Your task to perform on an android device: uninstall "Truecaller" Image 0: 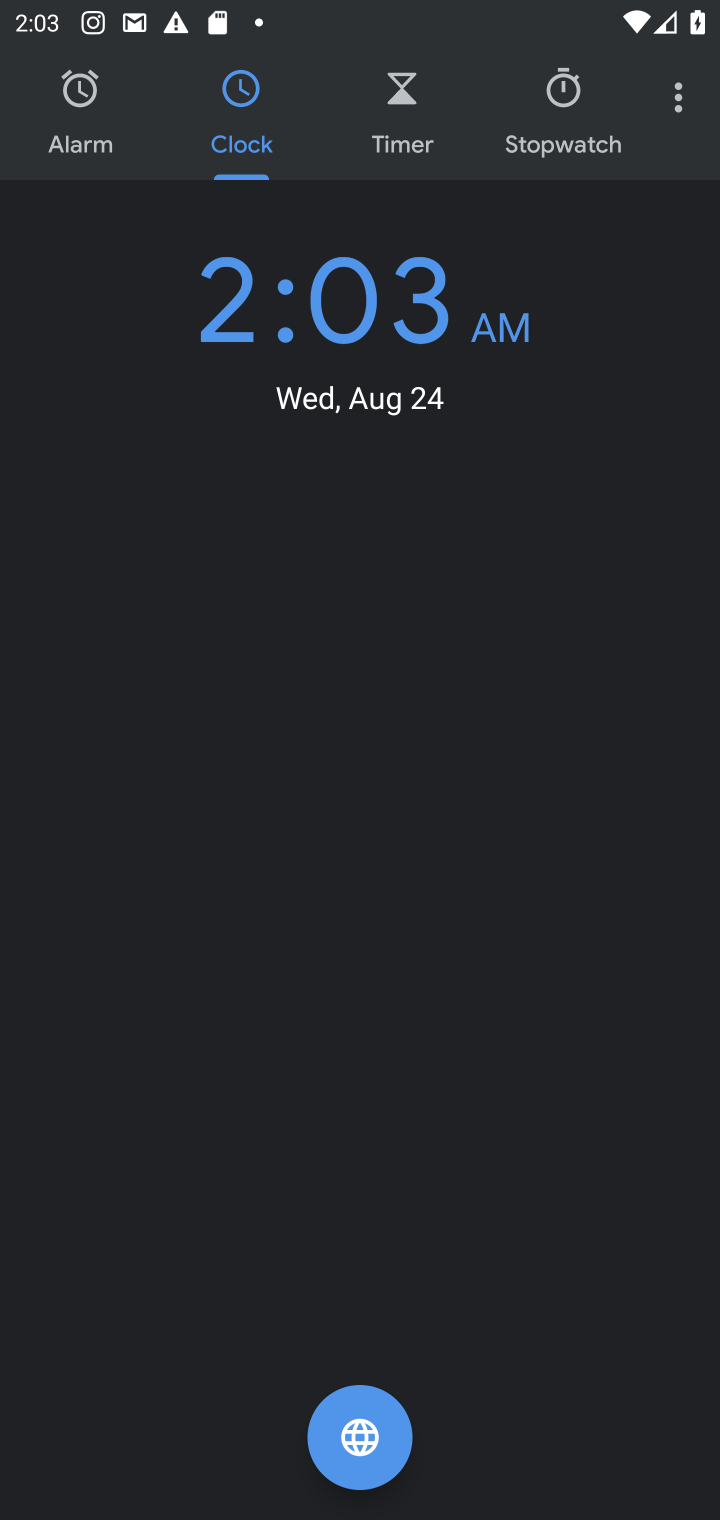
Step 0: press home button
Your task to perform on an android device: uninstall "Truecaller" Image 1: 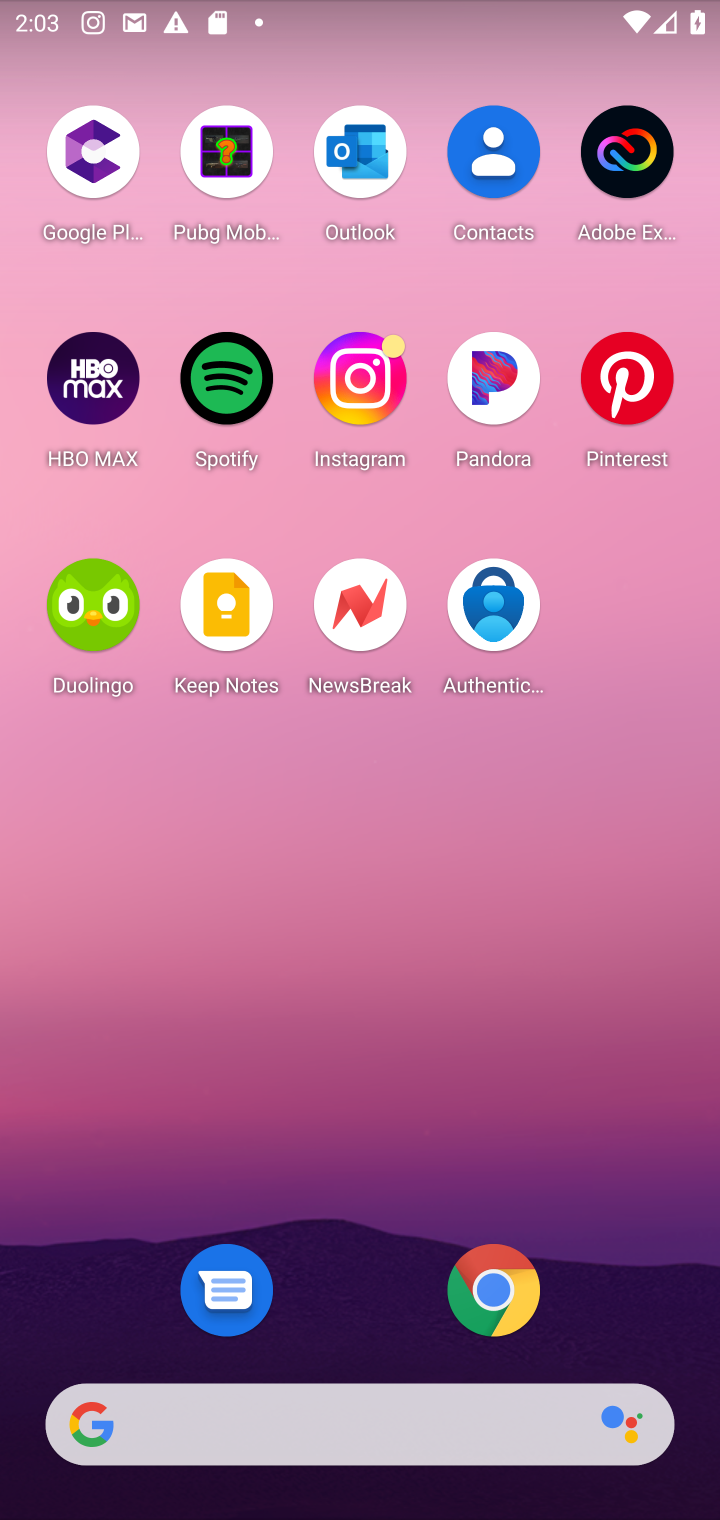
Step 1: click (366, 1352)
Your task to perform on an android device: uninstall "Truecaller" Image 2: 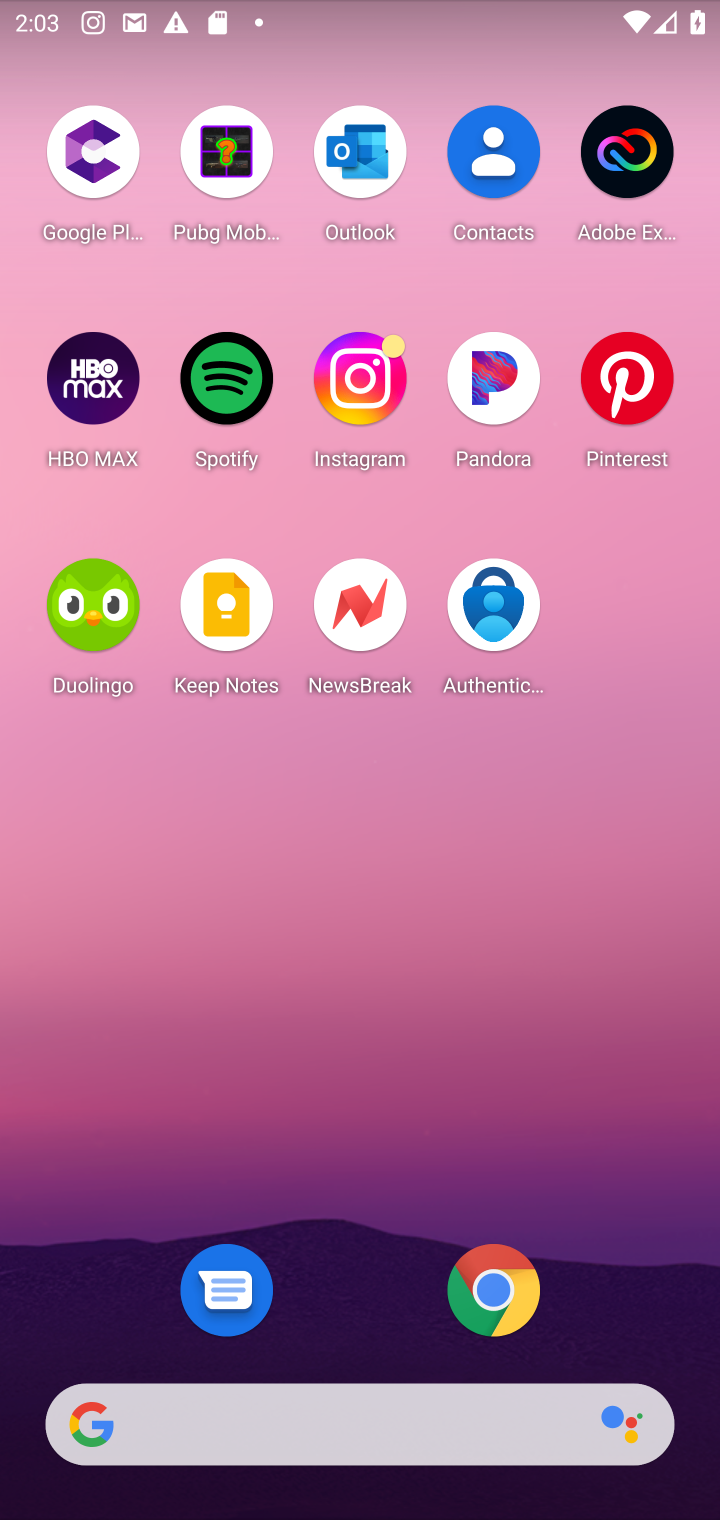
Step 2: drag from (332, 1276) to (465, 104)
Your task to perform on an android device: uninstall "Truecaller" Image 3: 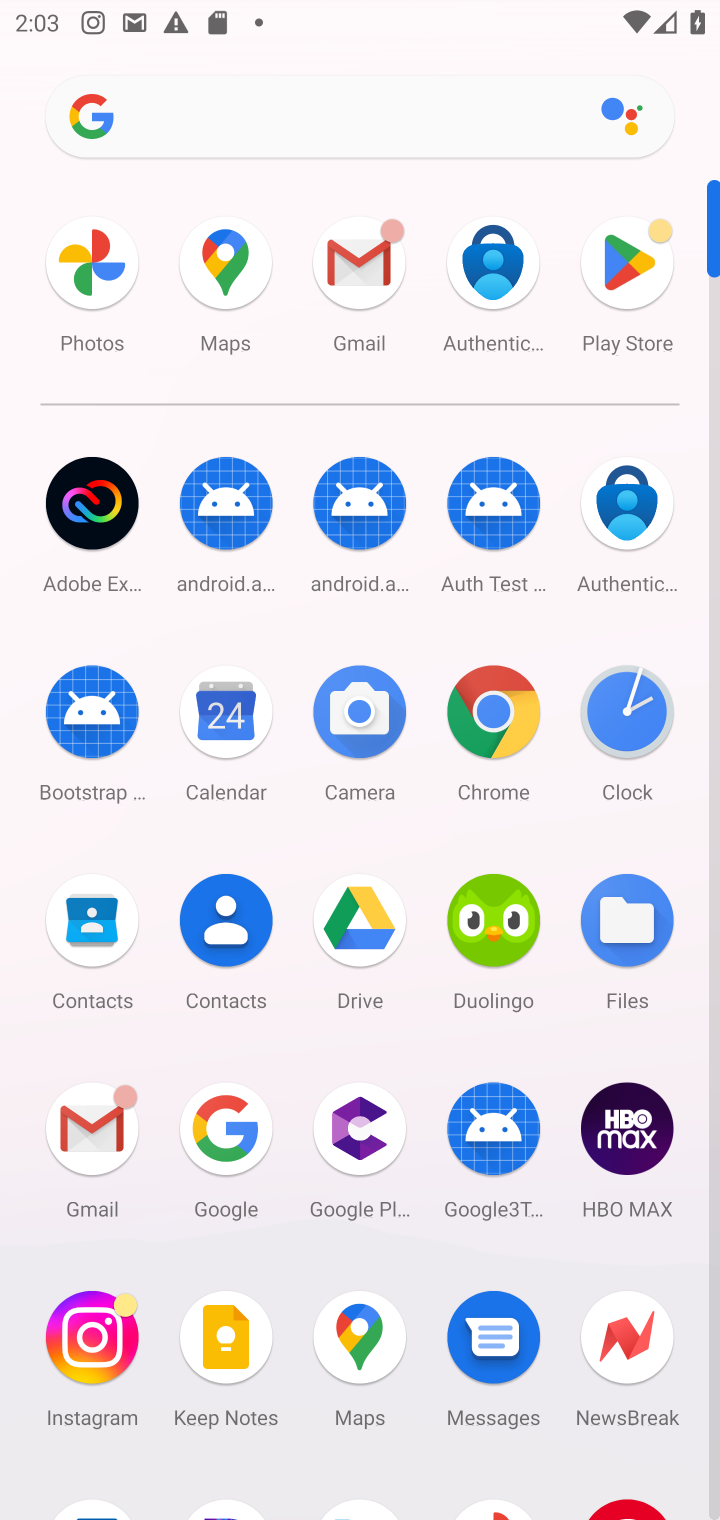
Step 3: click (624, 260)
Your task to perform on an android device: uninstall "Truecaller" Image 4: 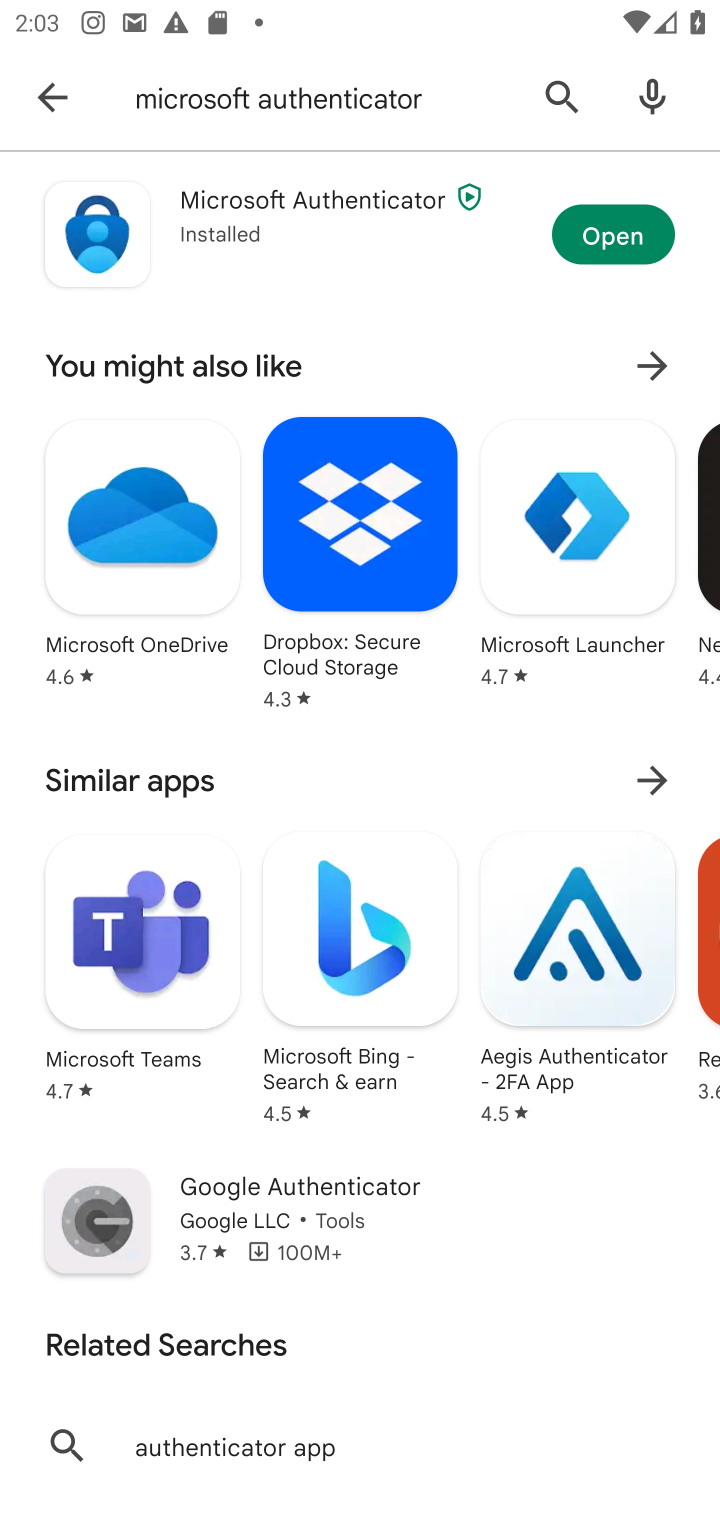
Step 4: click (31, 86)
Your task to perform on an android device: uninstall "Truecaller" Image 5: 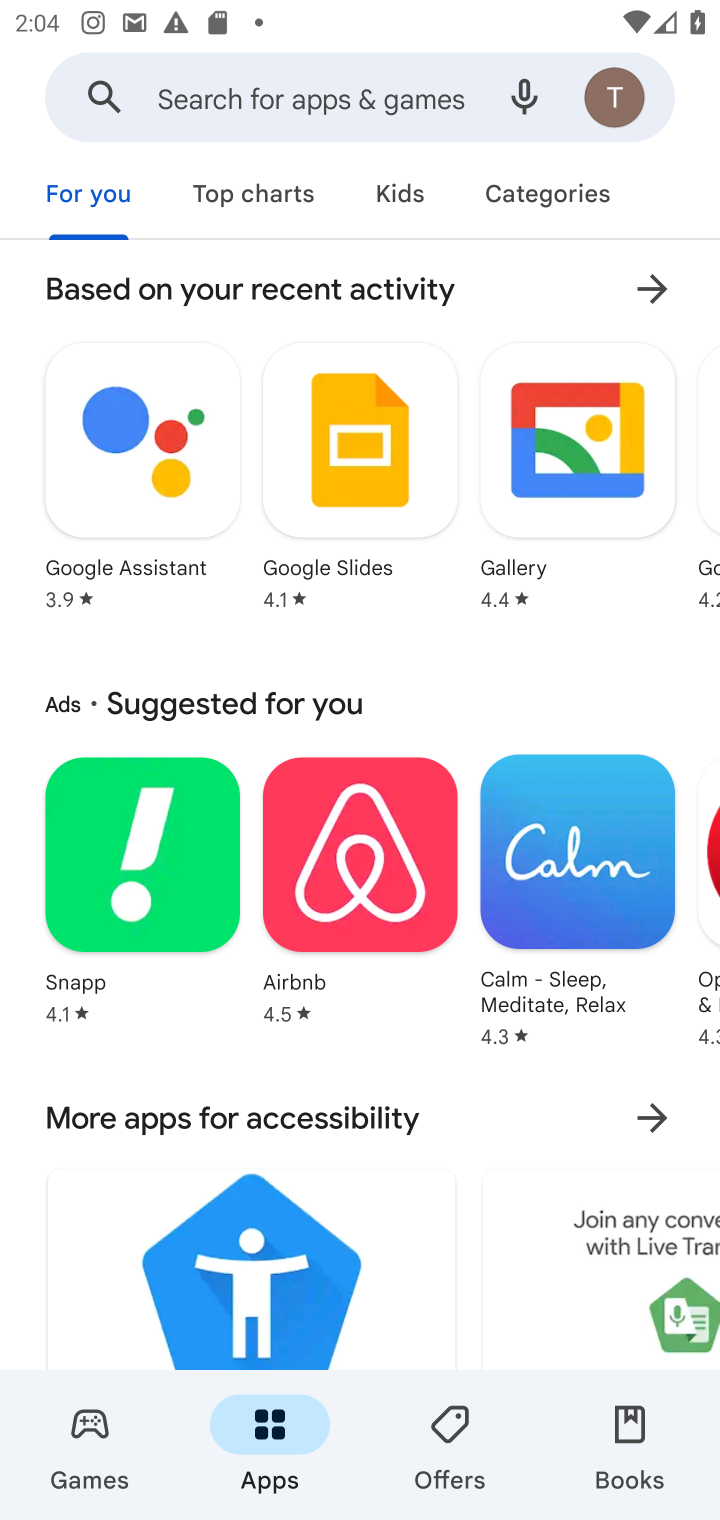
Step 5: click (323, 112)
Your task to perform on an android device: uninstall "Truecaller" Image 6: 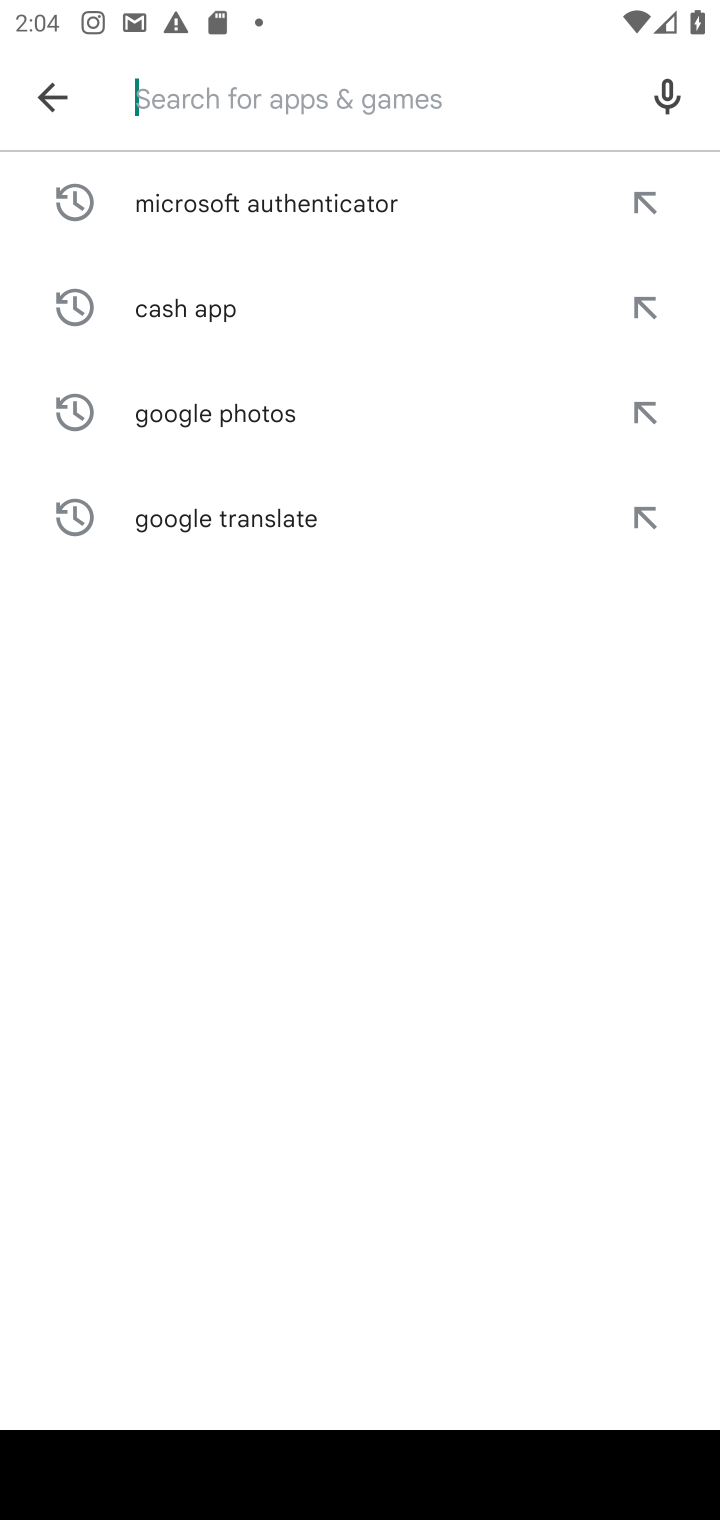
Step 6: type "Truecaller"
Your task to perform on an android device: uninstall "Truecaller" Image 7: 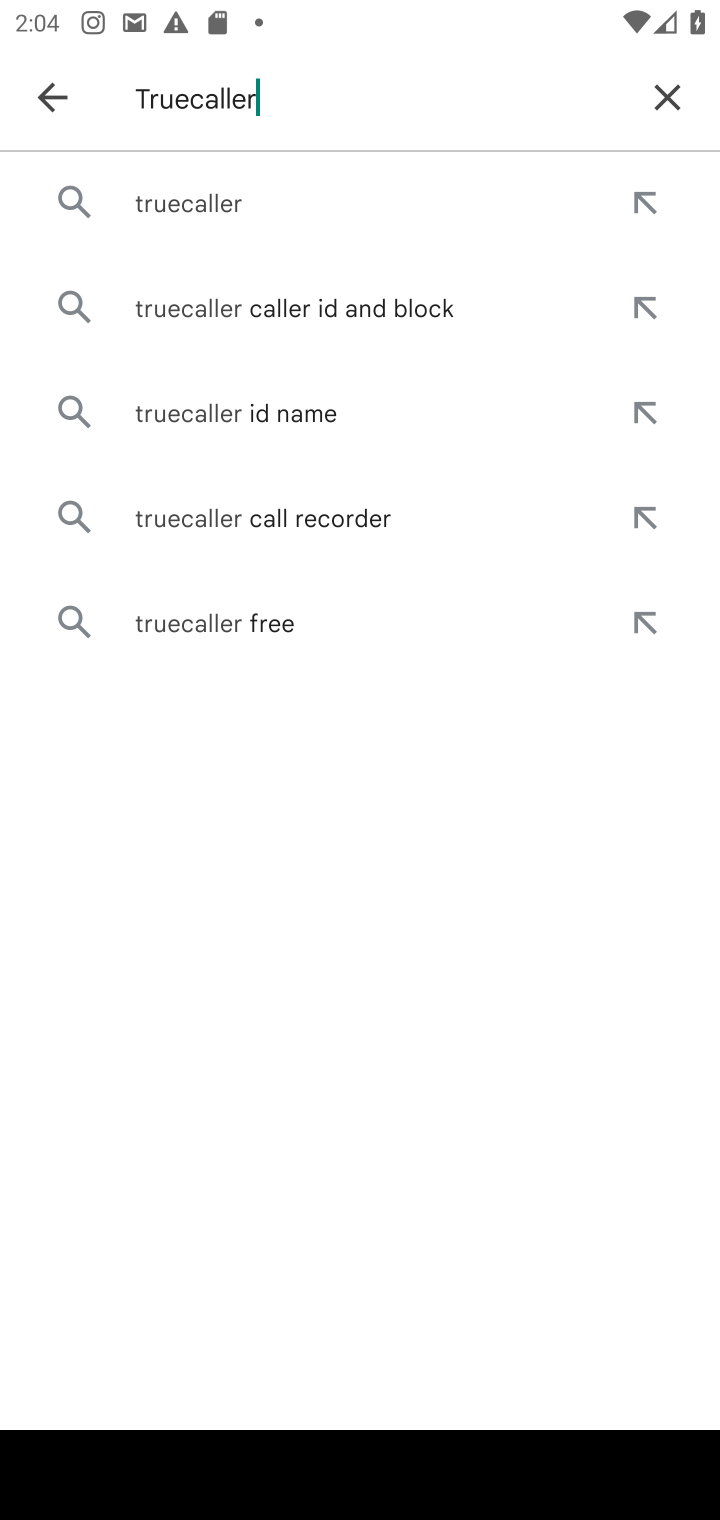
Step 7: click (164, 196)
Your task to perform on an android device: uninstall "Truecaller" Image 8: 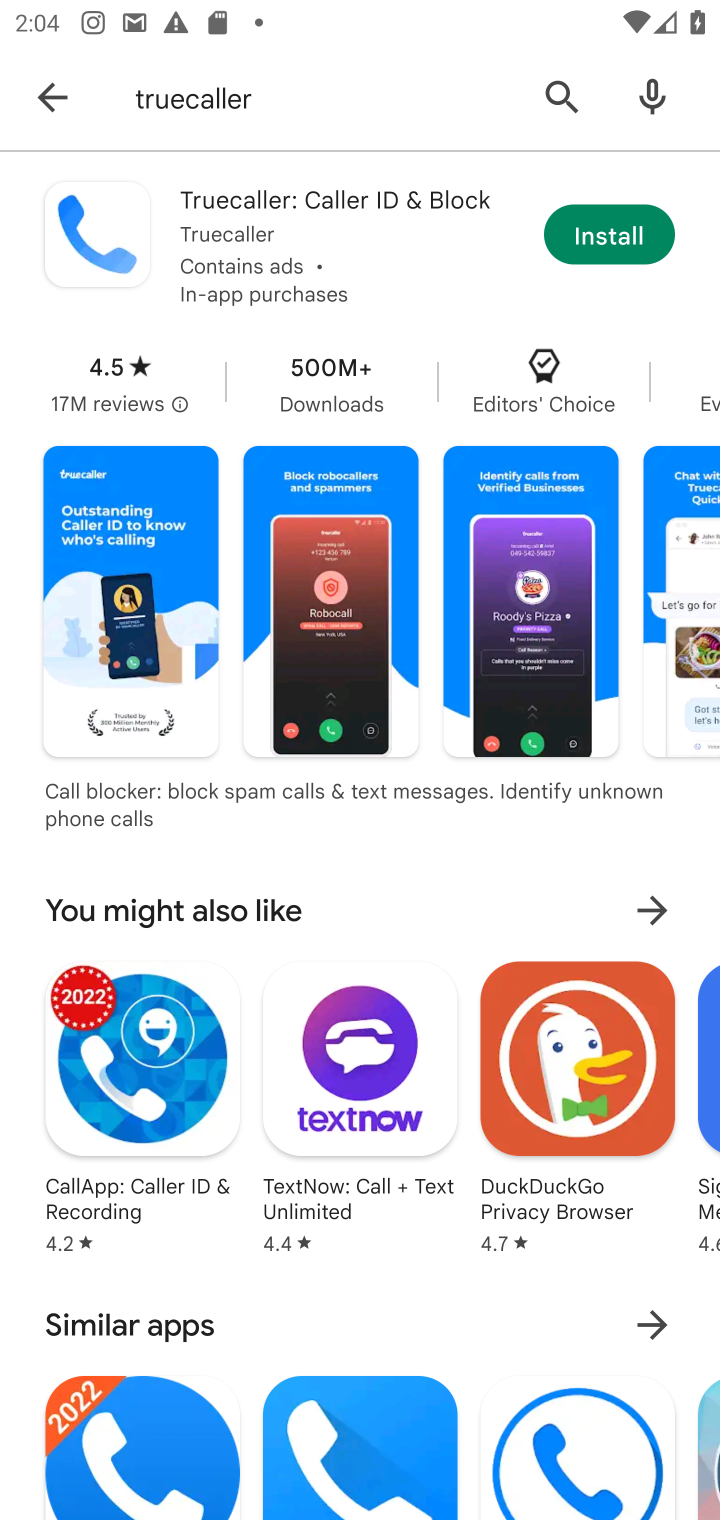
Step 8: task complete